Your task to perform on an android device: Turn off the flashlight Image 0: 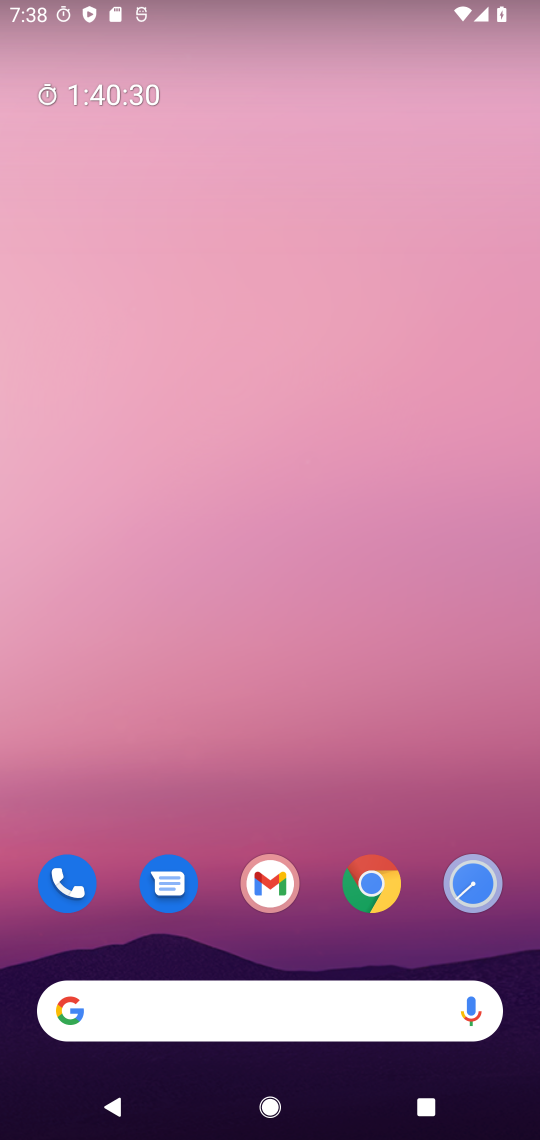
Step 0: drag from (243, 712) to (288, 174)
Your task to perform on an android device: Turn off the flashlight Image 1: 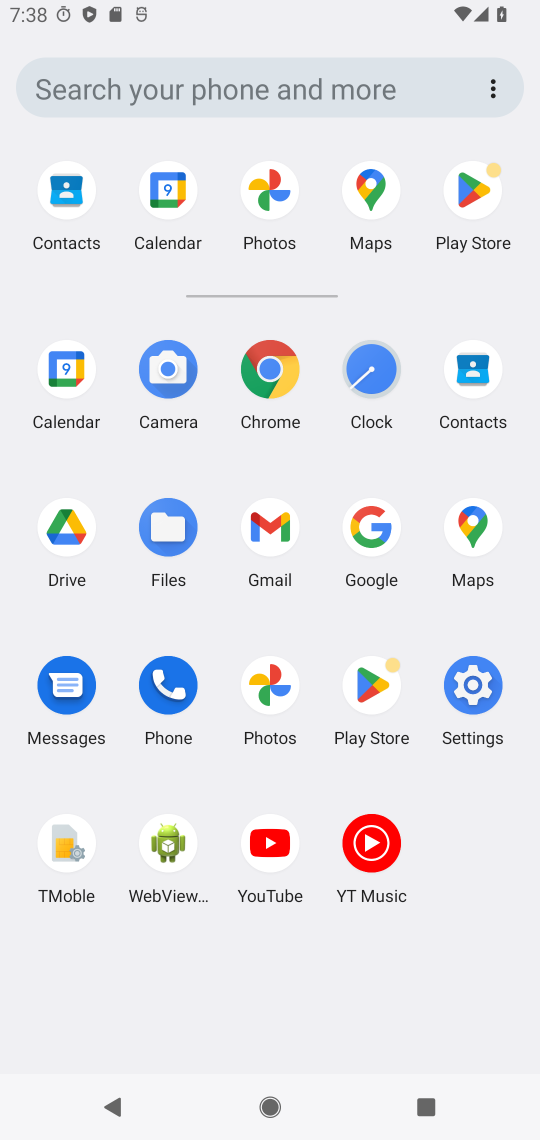
Step 1: click (460, 724)
Your task to perform on an android device: Turn off the flashlight Image 2: 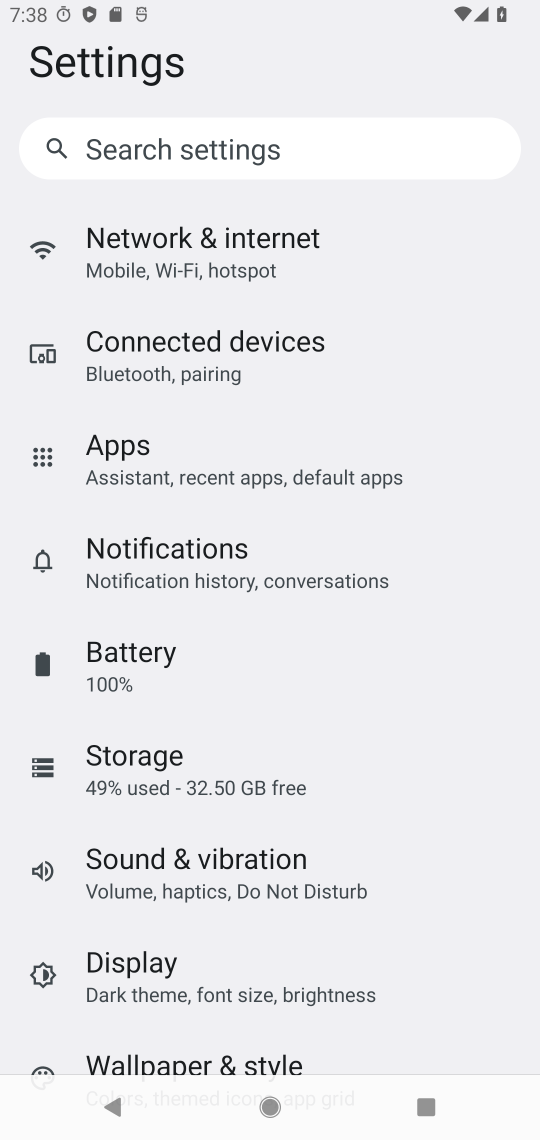
Step 2: task complete